Your task to perform on an android device: open app "Skype" (install if not already installed) Image 0: 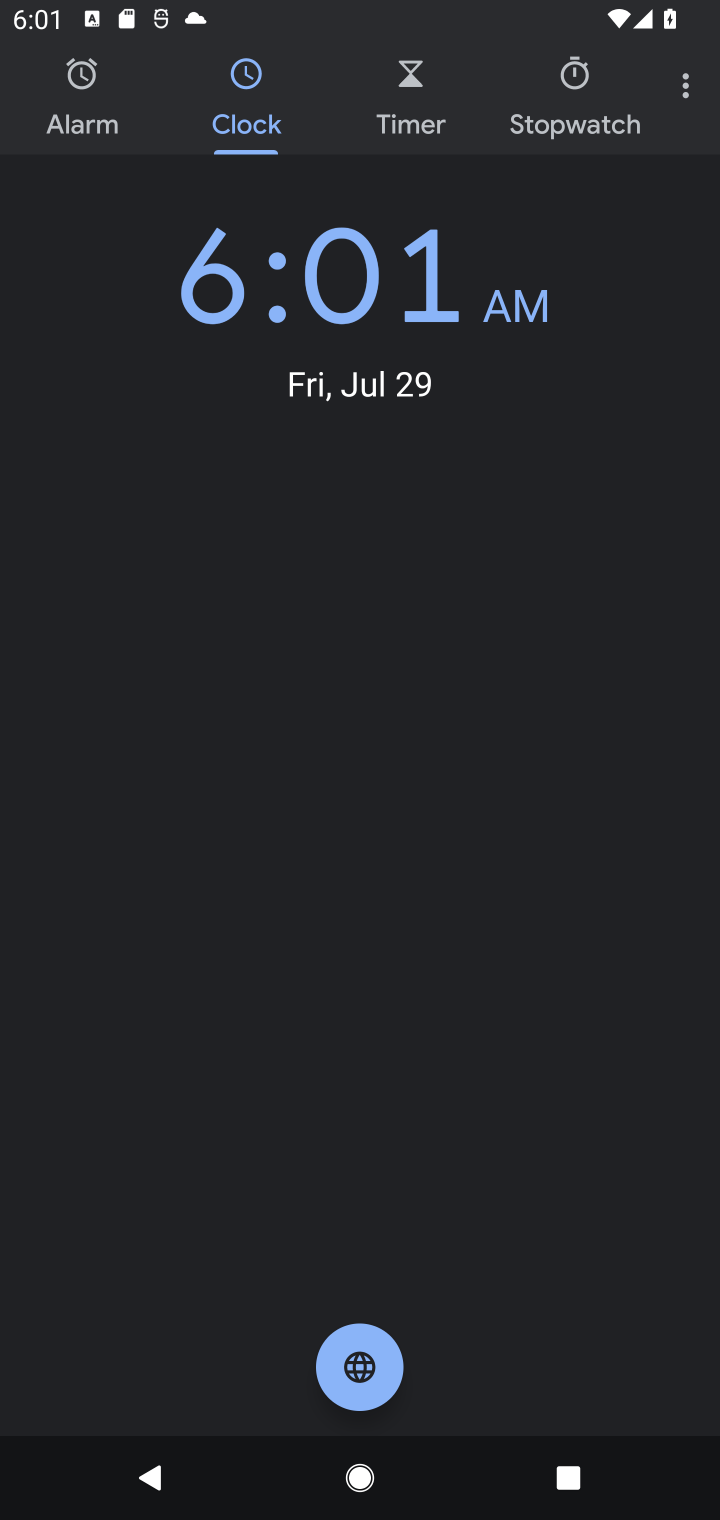
Step 0: press home button
Your task to perform on an android device: open app "Skype" (install if not already installed) Image 1: 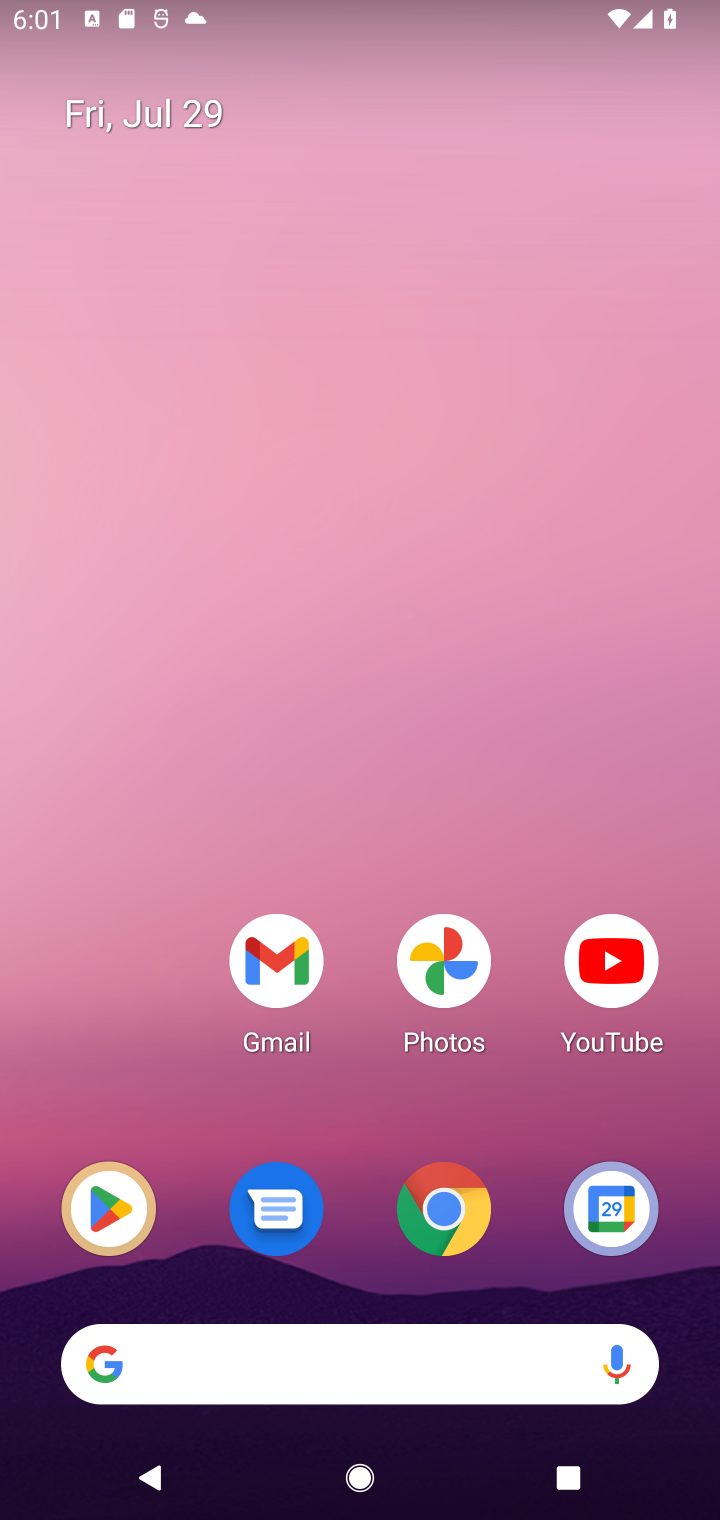
Step 1: click (106, 1193)
Your task to perform on an android device: open app "Skype" (install if not already installed) Image 2: 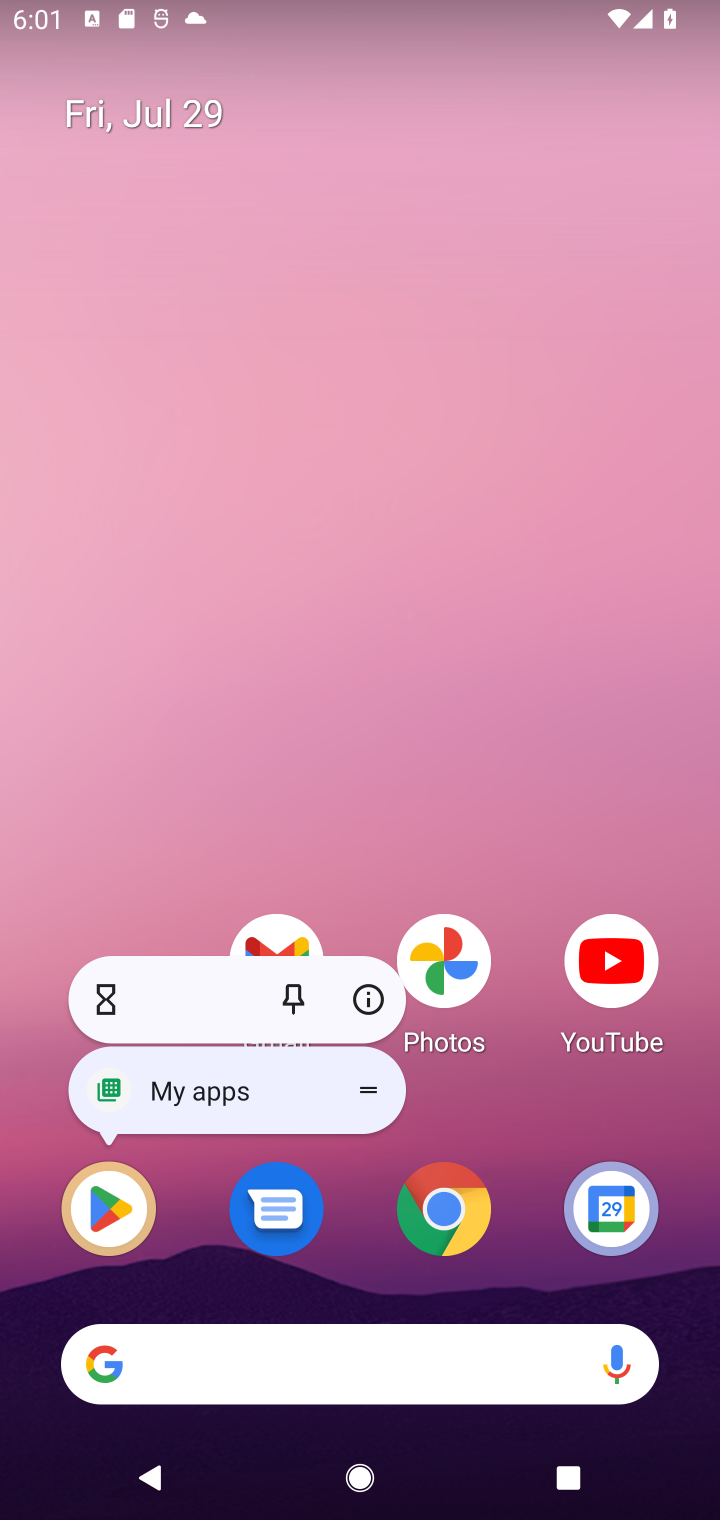
Step 2: click (106, 1193)
Your task to perform on an android device: open app "Skype" (install if not already installed) Image 3: 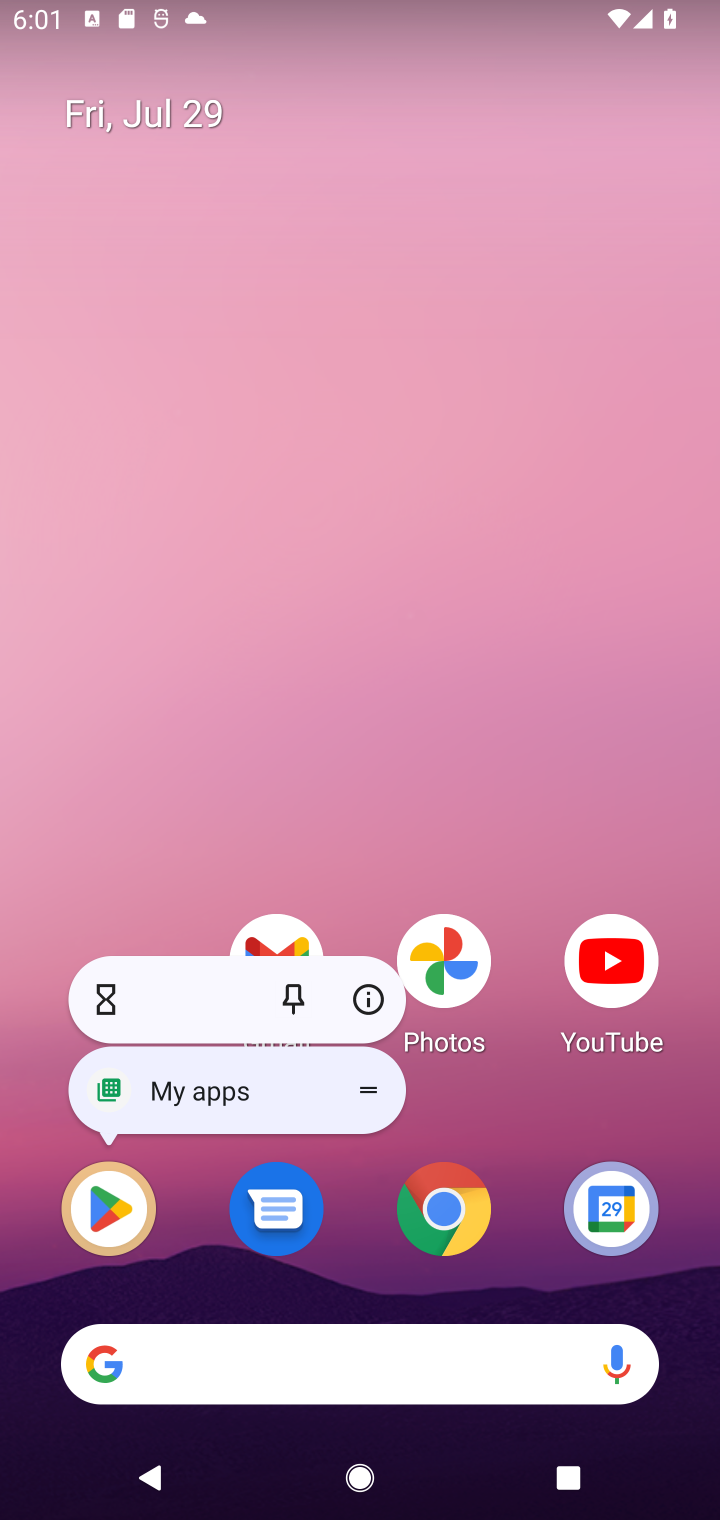
Step 3: click (112, 1208)
Your task to perform on an android device: open app "Skype" (install if not already installed) Image 4: 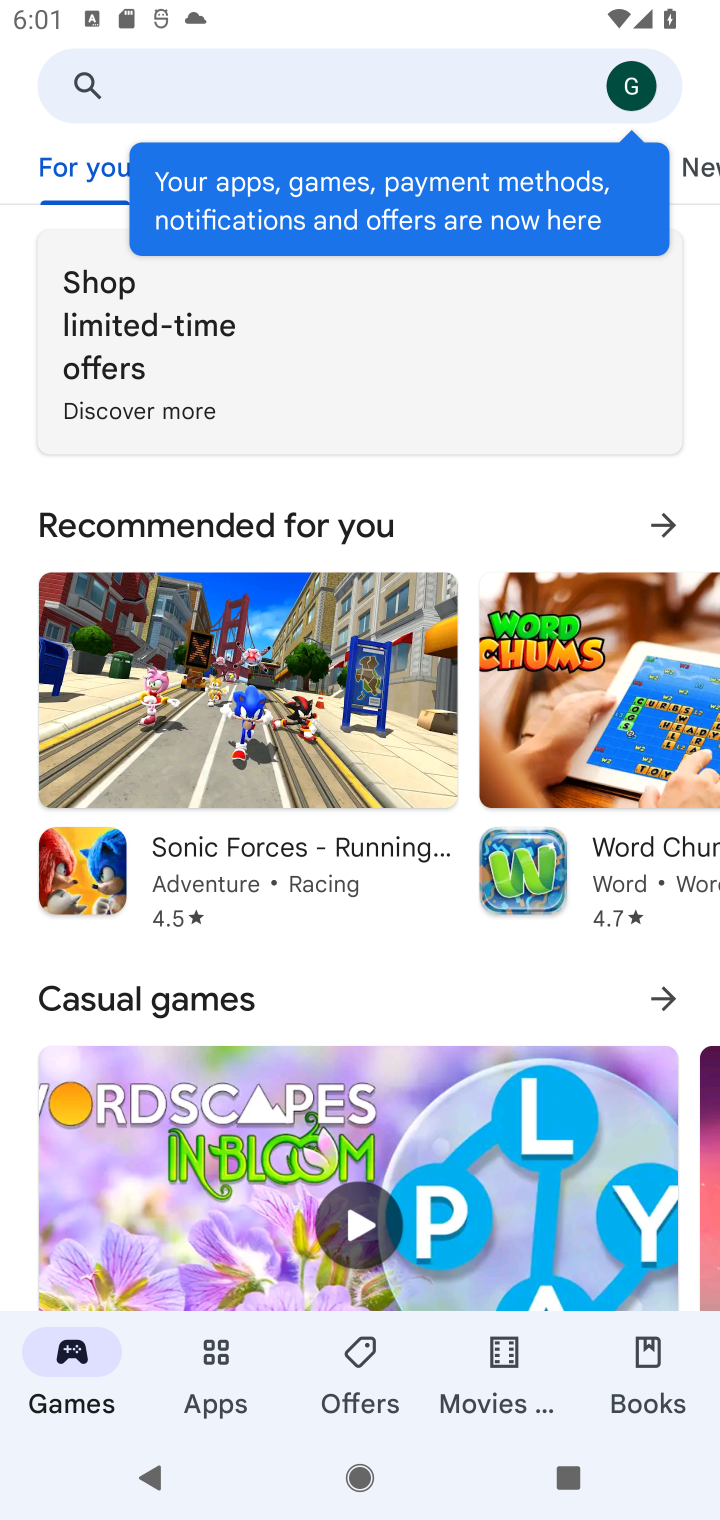
Step 4: click (391, 98)
Your task to perform on an android device: open app "Skype" (install if not already installed) Image 5: 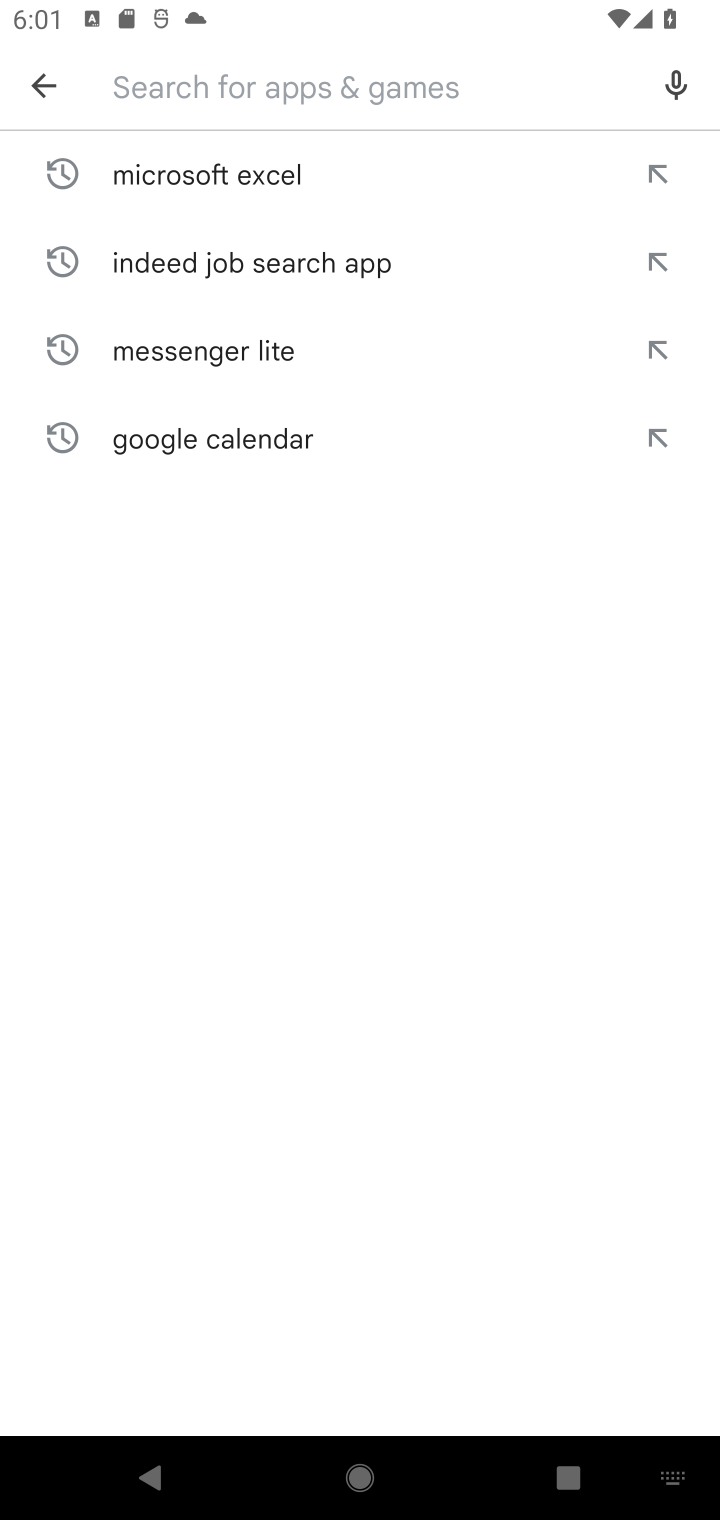
Step 5: type "skype"
Your task to perform on an android device: open app "Skype" (install if not already installed) Image 6: 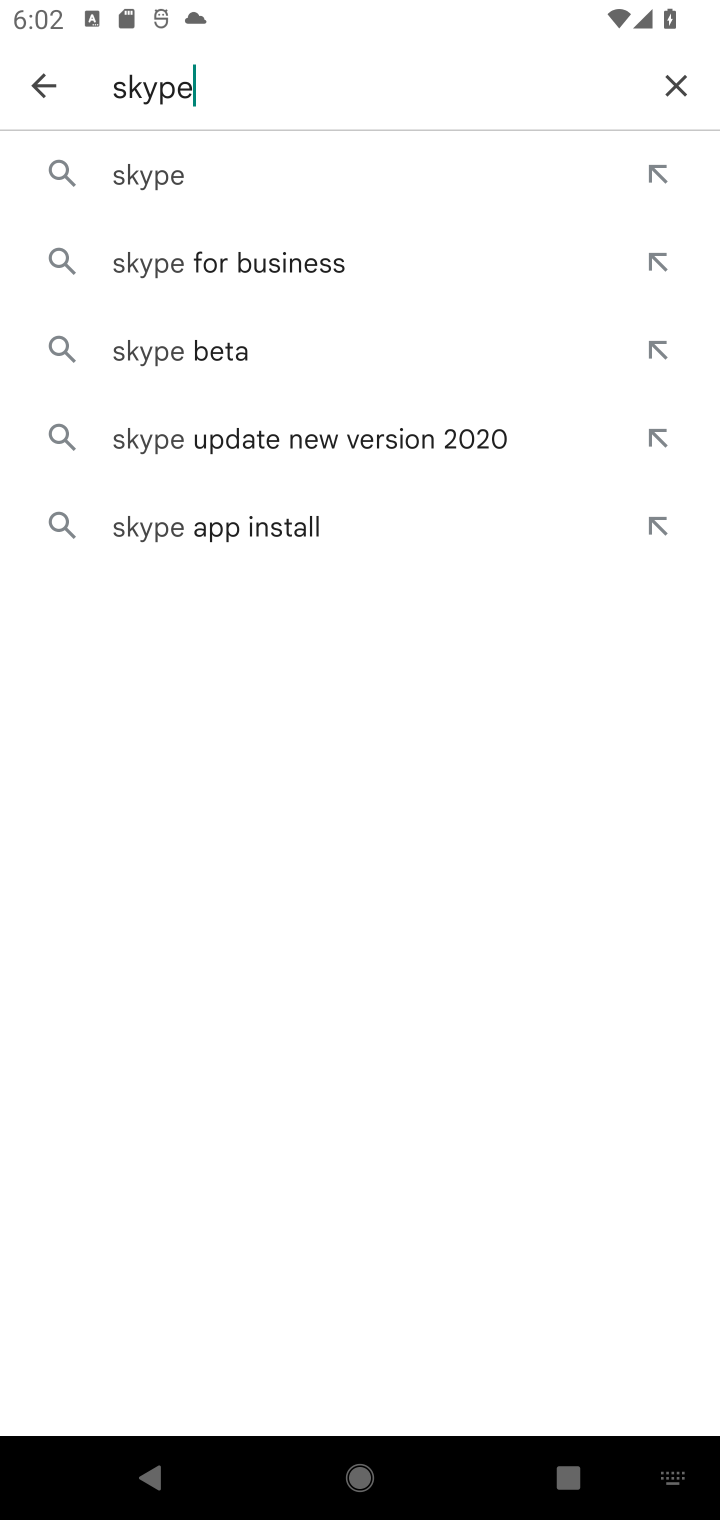
Step 6: click (166, 186)
Your task to perform on an android device: open app "Skype" (install if not already installed) Image 7: 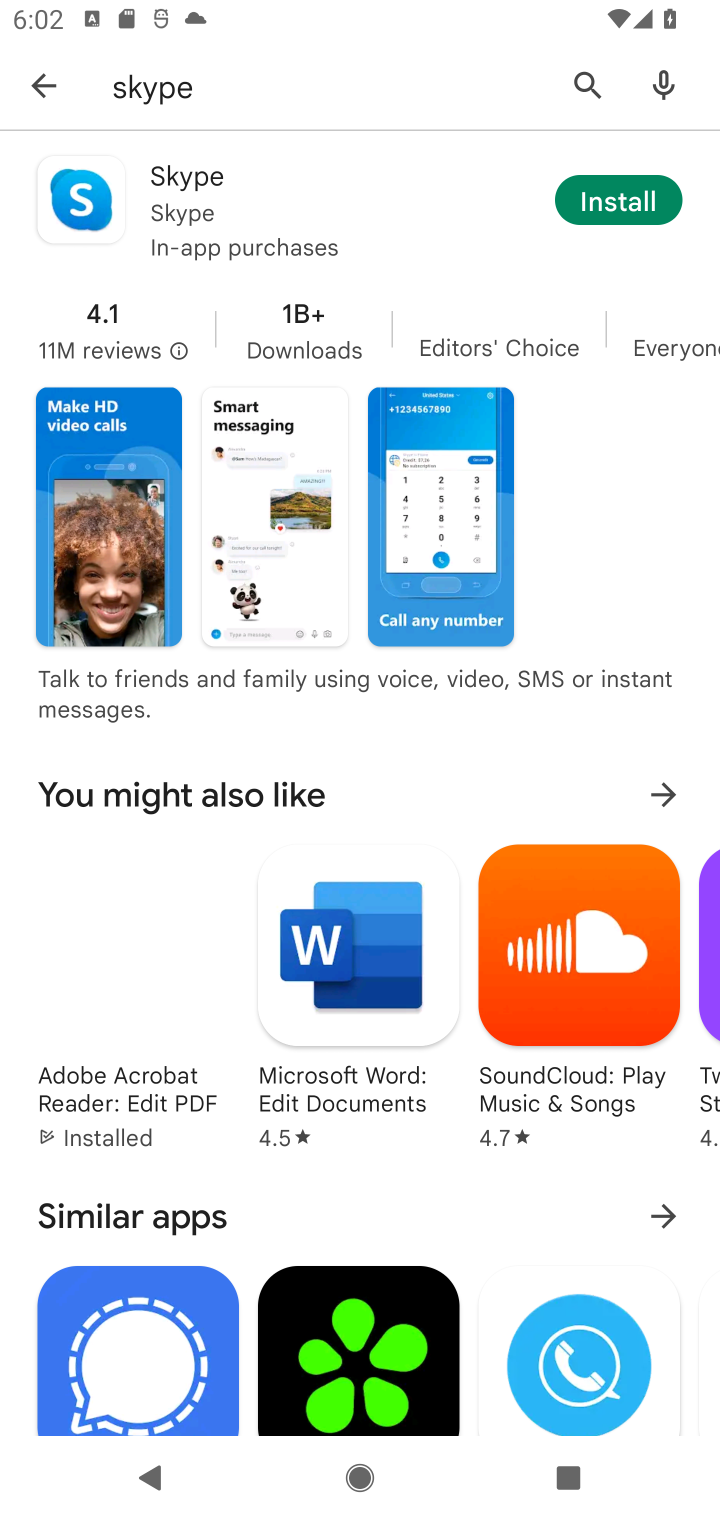
Step 7: click (632, 209)
Your task to perform on an android device: open app "Skype" (install if not already installed) Image 8: 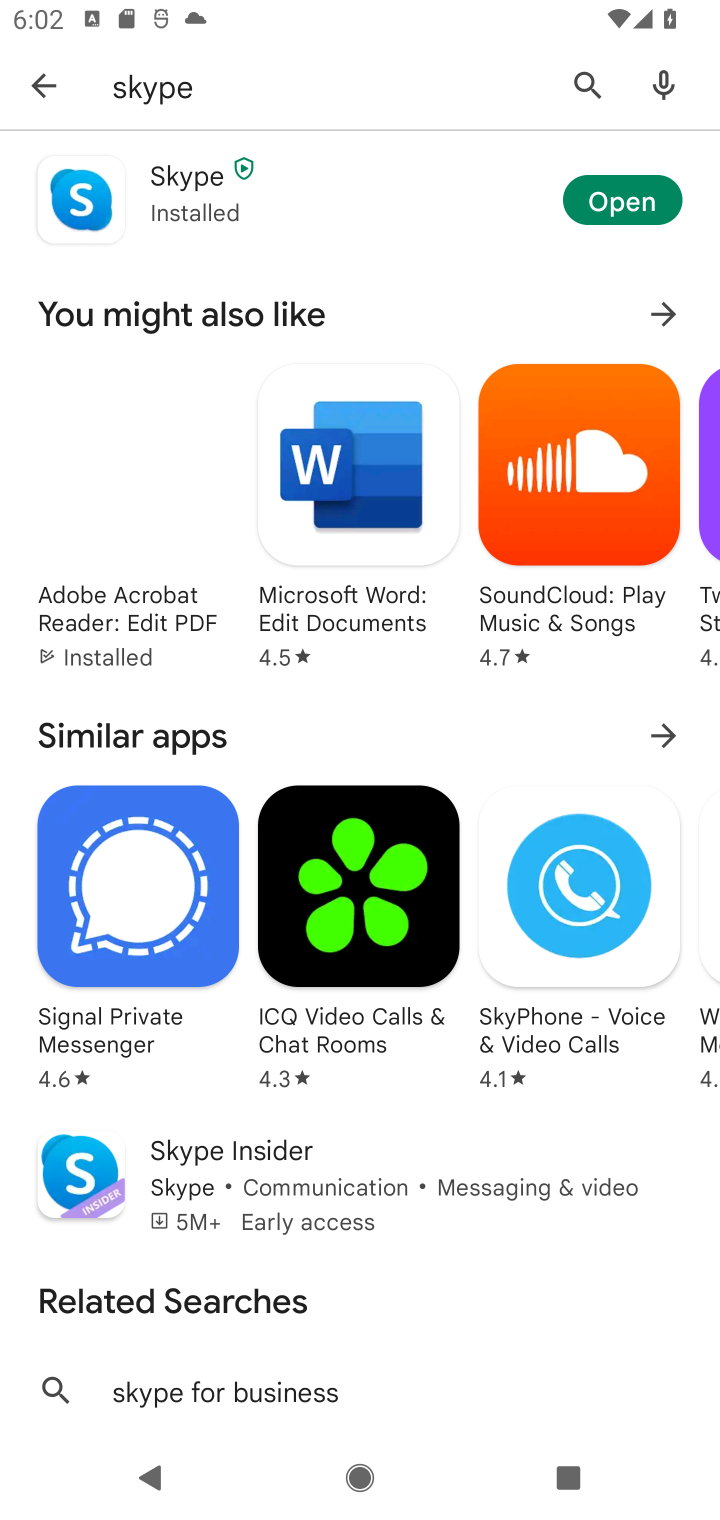
Step 8: click (637, 213)
Your task to perform on an android device: open app "Skype" (install if not already installed) Image 9: 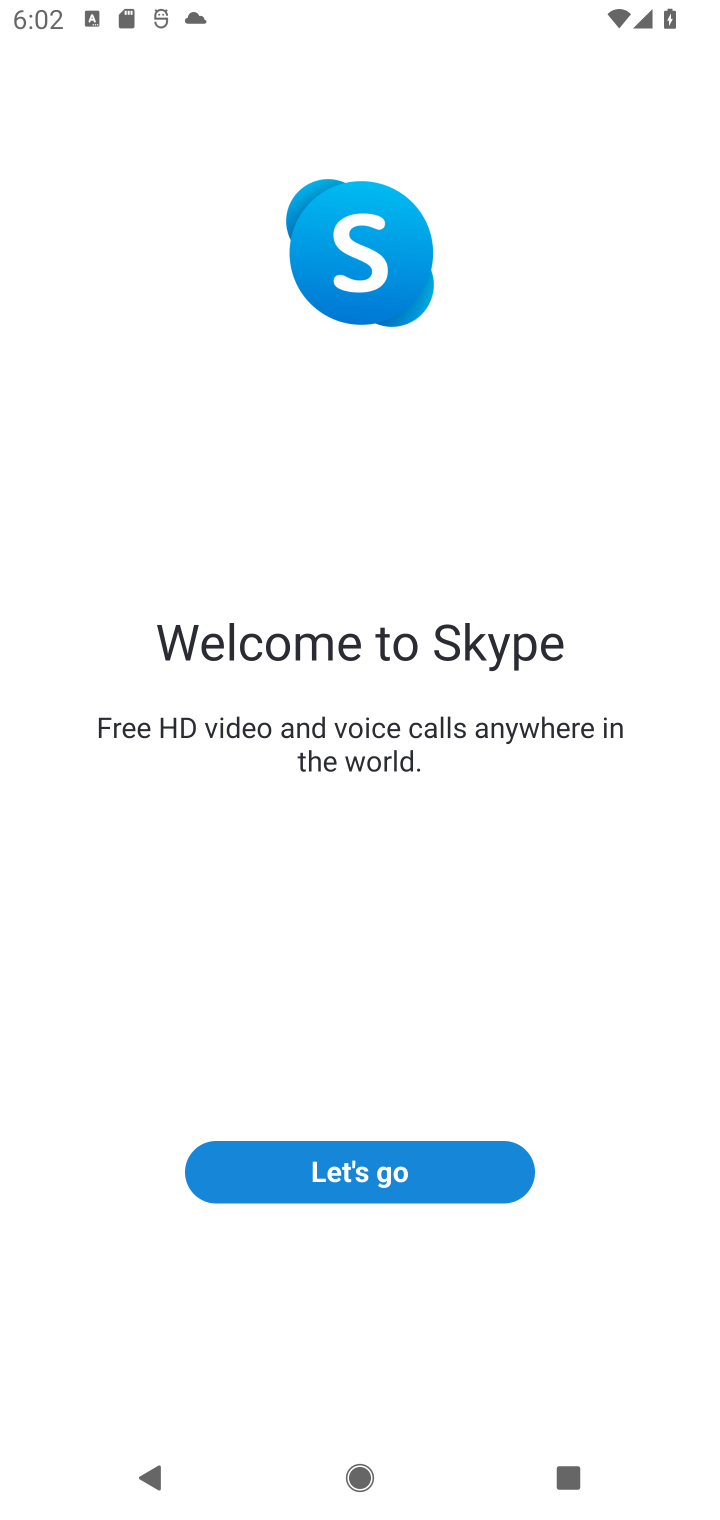
Step 9: task complete